Your task to perform on an android device: install app "Pinterest" Image 0: 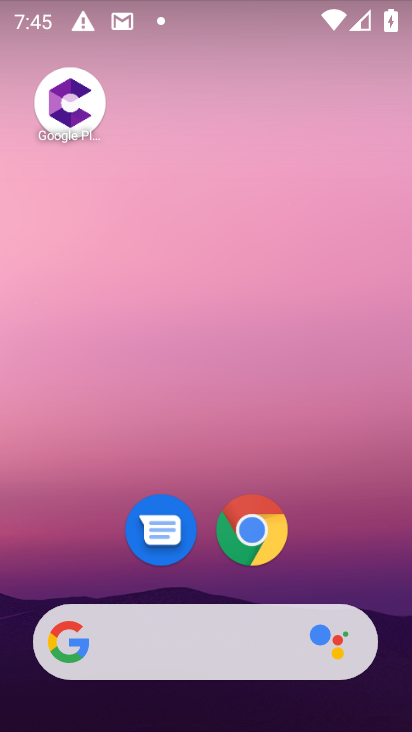
Step 0: drag from (280, 720) to (199, 137)
Your task to perform on an android device: install app "Pinterest" Image 1: 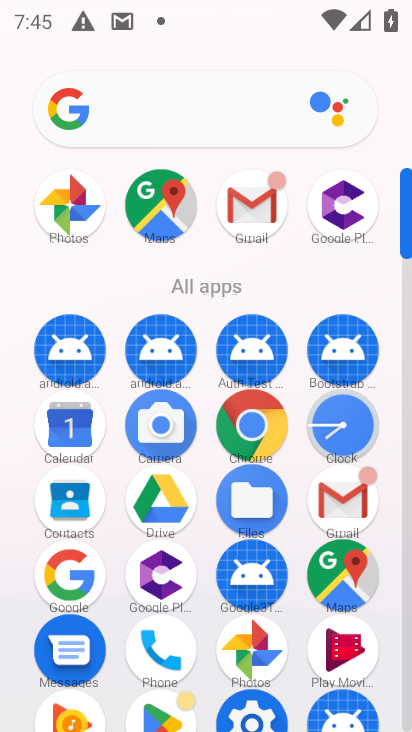
Step 1: click (167, 703)
Your task to perform on an android device: install app "Pinterest" Image 2: 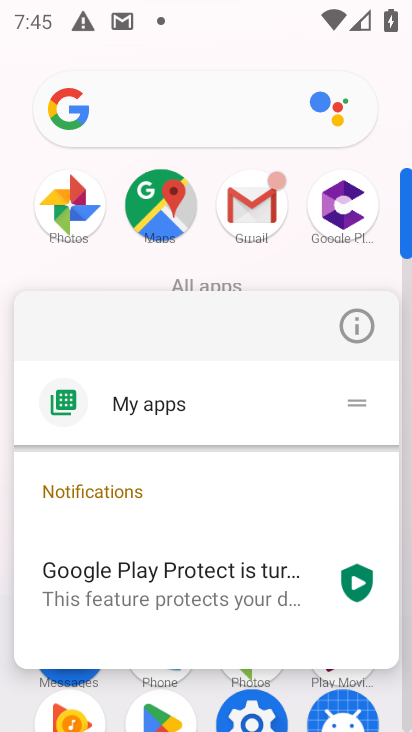
Step 2: click (179, 696)
Your task to perform on an android device: install app "Pinterest" Image 3: 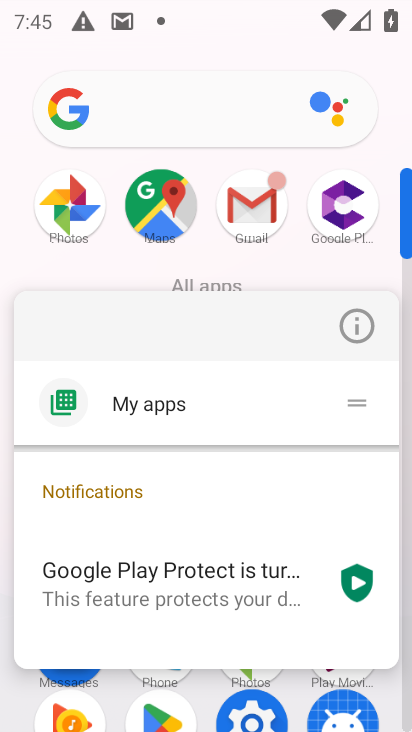
Step 3: click (179, 696)
Your task to perform on an android device: install app "Pinterest" Image 4: 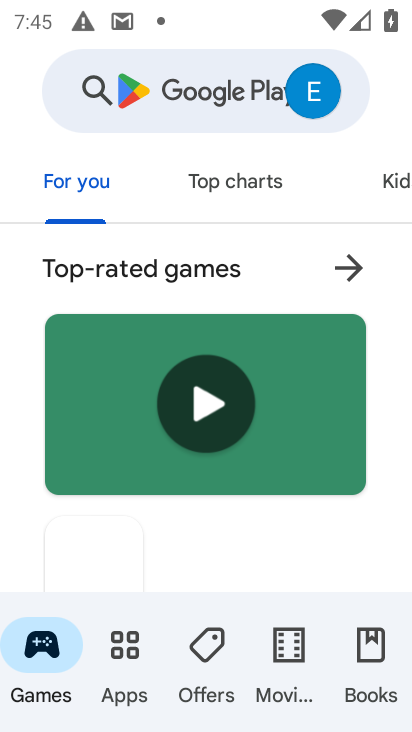
Step 4: click (191, 77)
Your task to perform on an android device: install app "Pinterest" Image 5: 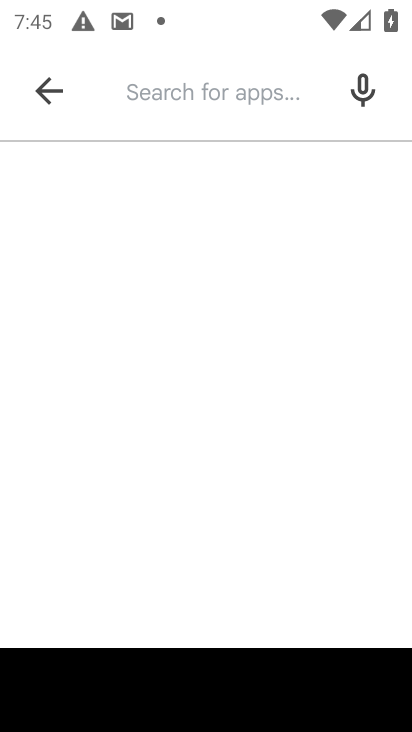
Step 5: type "Pinterest"
Your task to perform on an android device: install app "Pinterest" Image 6: 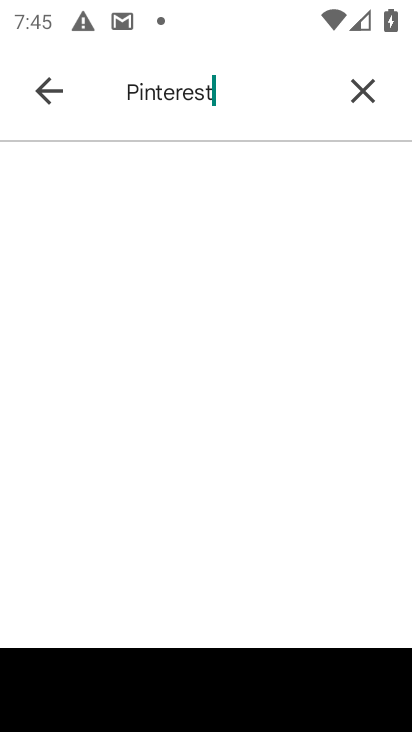
Step 6: type ""
Your task to perform on an android device: install app "Pinterest" Image 7: 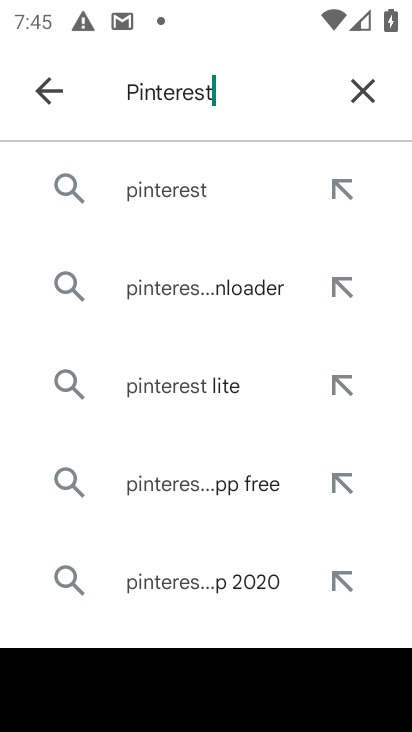
Step 7: click (194, 196)
Your task to perform on an android device: install app "Pinterest" Image 8: 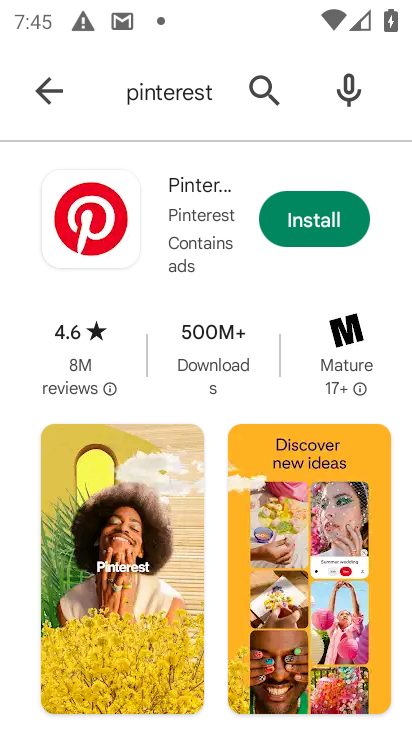
Step 8: click (309, 234)
Your task to perform on an android device: install app "Pinterest" Image 9: 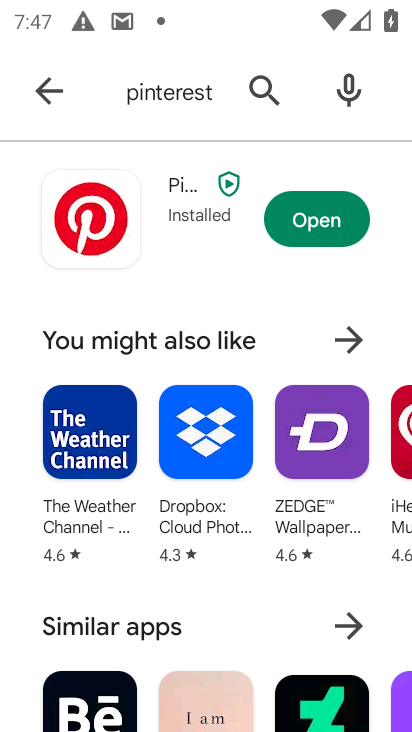
Step 9: task complete